Your task to perform on an android device: show emergency info Image 0: 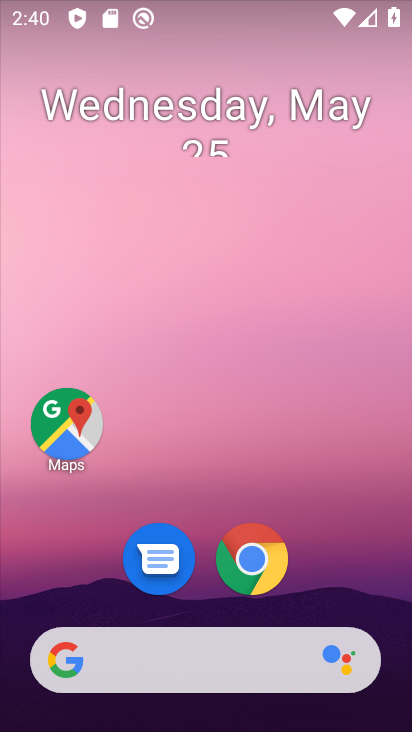
Step 0: press home button
Your task to perform on an android device: show emergency info Image 1: 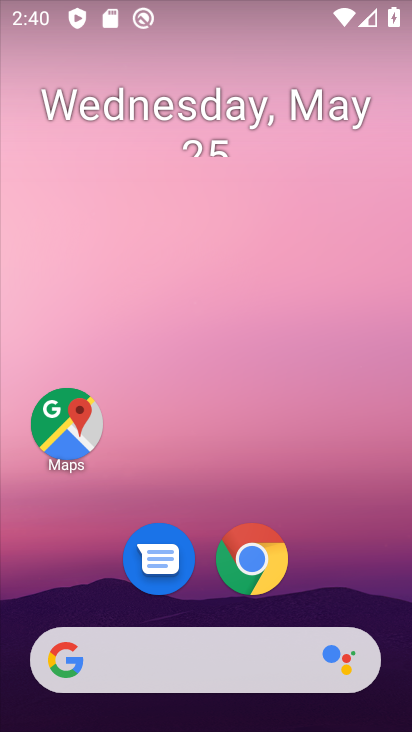
Step 1: drag from (211, 606) to (199, 169)
Your task to perform on an android device: show emergency info Image 2: 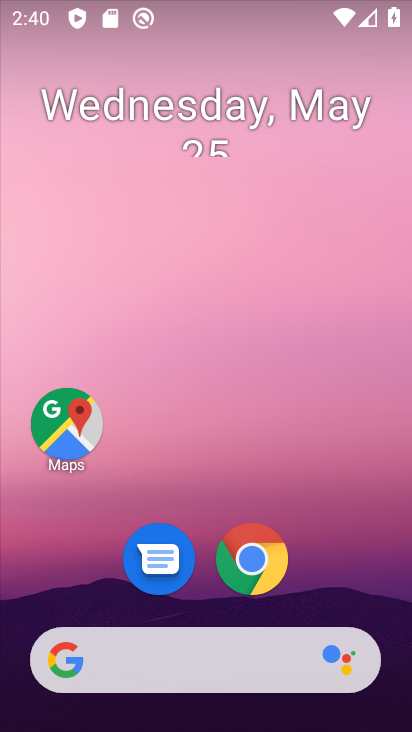
Step 2: drag from (325, 588) to (369, 26)
Your task to perform on an android device: show emergency info Image 3: 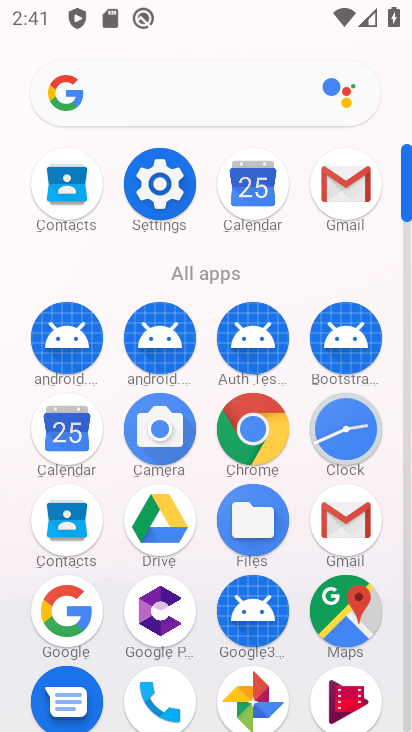
Step 3: click (156, 180)
Your task to perform on an android device: show emergency info Image 4: 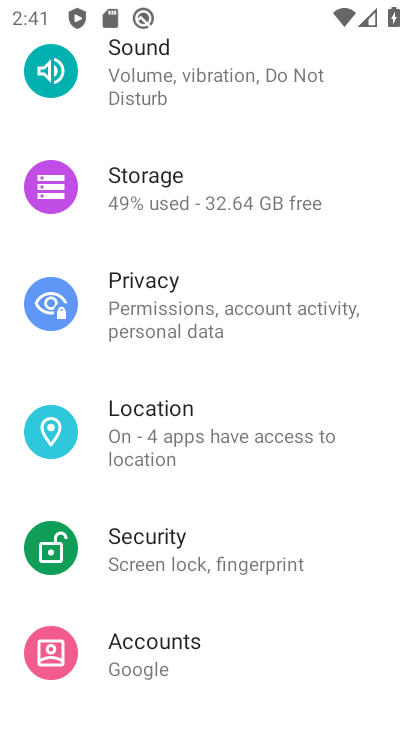
Step 4: drag from (222, 677) to (190, 112)
Your task to perform on an android device: show emergency info Image 5: 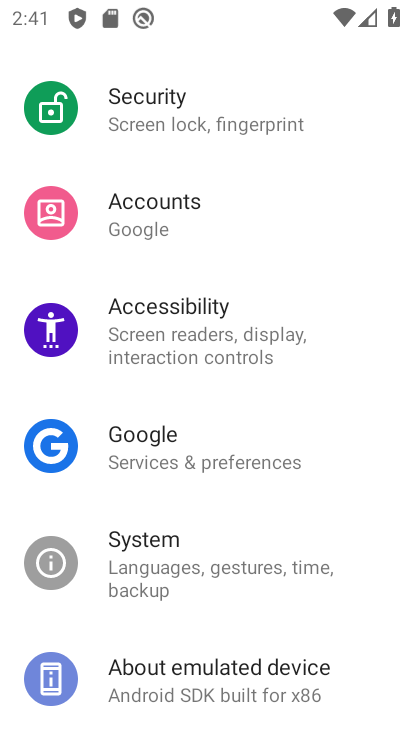
Step 5: click (332, 685)
Your task to perform on an android device: show emergency info Image 6: 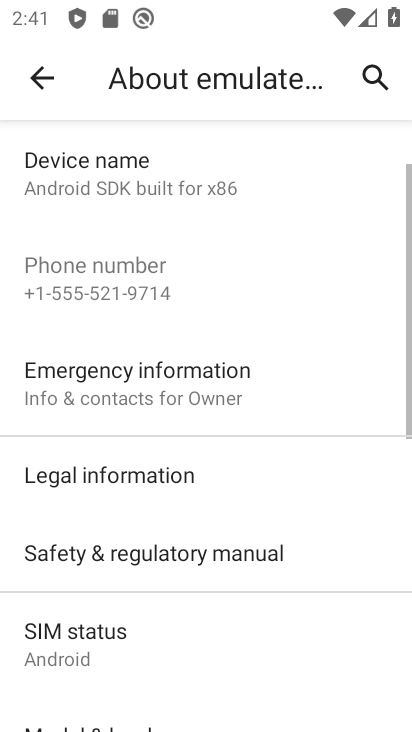
Step 6: click (255, 389)
Your task to perform on an android device: show emergency info Image 7: 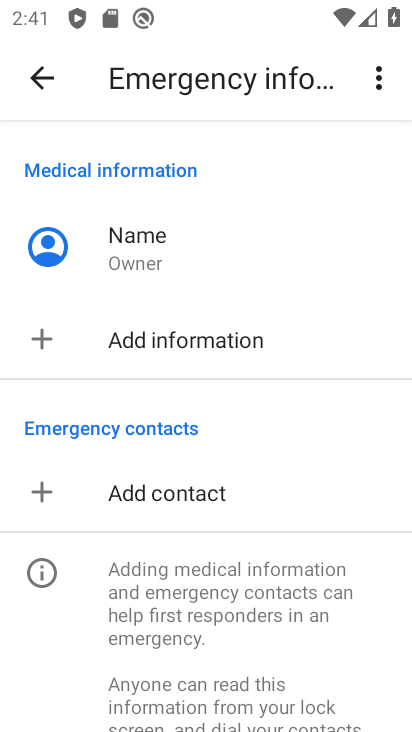
Step 7: task complete